Your task to perform on an android device: change notifications settings Image 0: 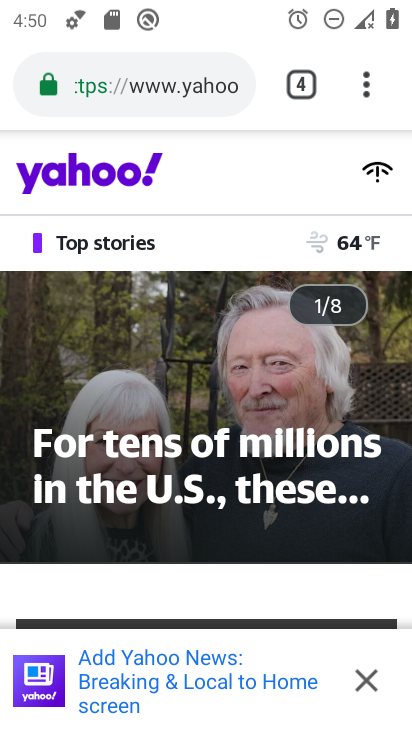
Step 0: press back button
Your task to perform on an android device: change notifications settings Image 1: 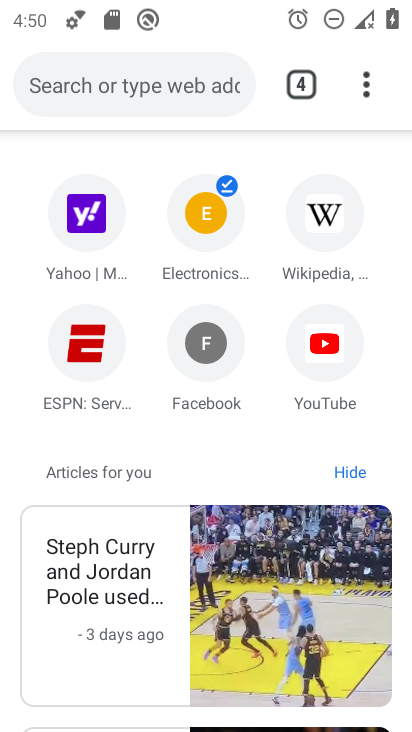
Step 1: press home button
Your task to perform on an android device: change notifications settings Image 2: 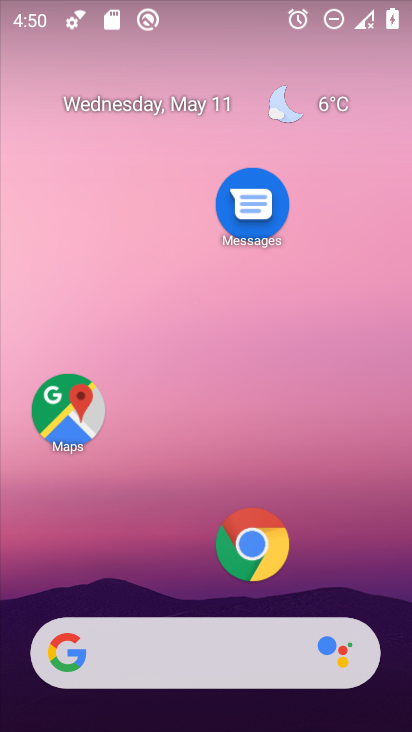
Step 2: drag from (172, 623) to (256, 100)
Your task to perform on an android device: change notifications settings Image 3: 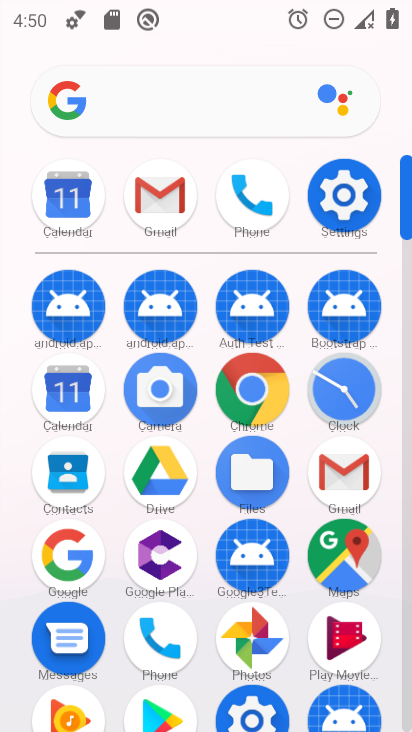
Step 3: click (344, 202)
Your task to perform on an android device: change notifications settings Image 4: 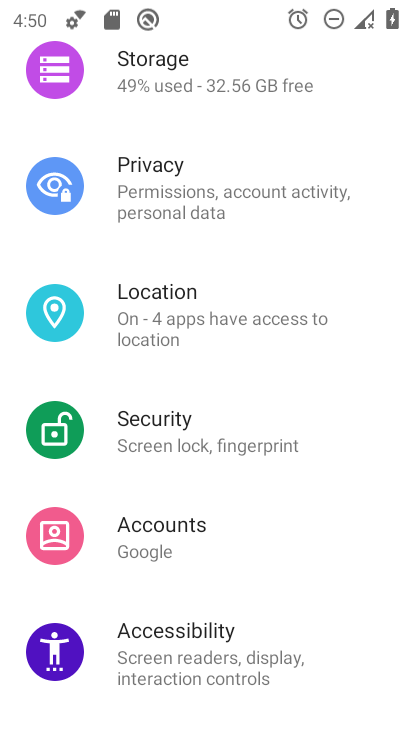
Step 4: drag from (258, 143) to (224, 487)
Your task to perform on an android device: change notifications settings Image 5: 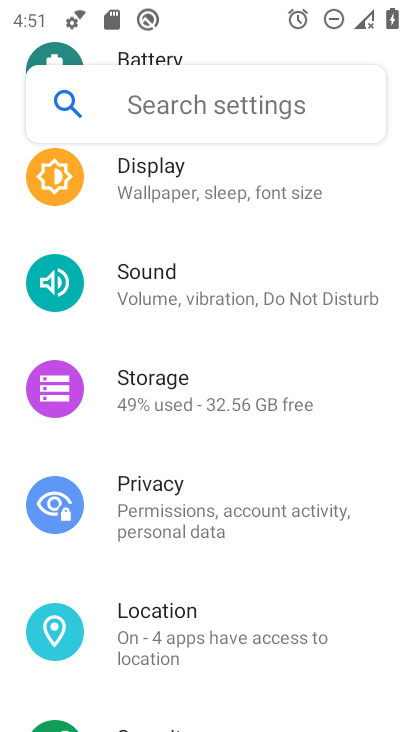
Step 5: drag from (245, 289) to (208, 527)
Your task to perform on an android device: change notifications settings Image 6: 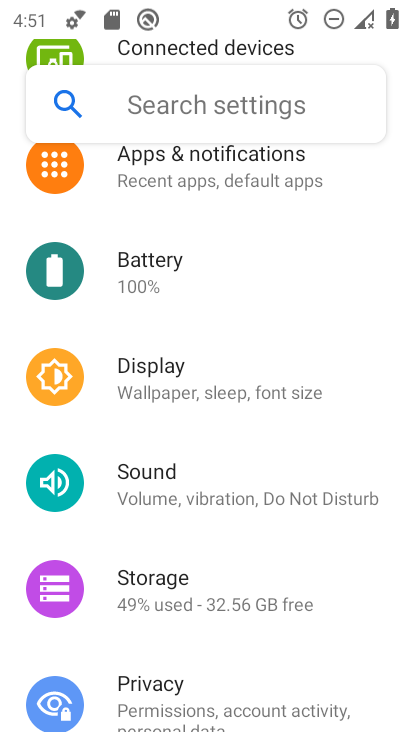
Step 6: click (267, 168)
Your task to perform on an android device: change notifications settings Image 7: 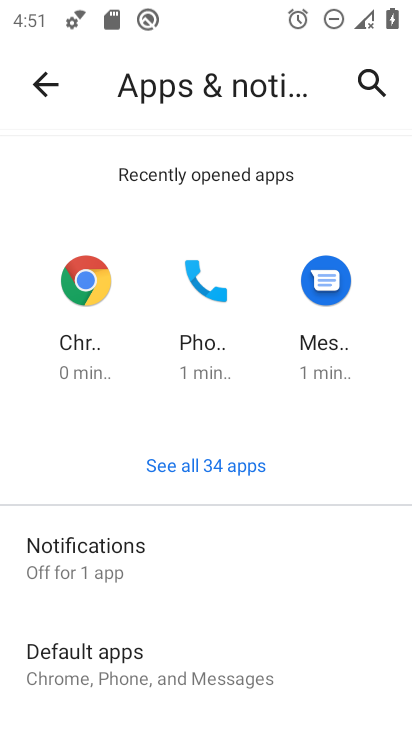
Step 7: click (146, 561)
Your task to perform on an android device: change notifications settings Image 8: 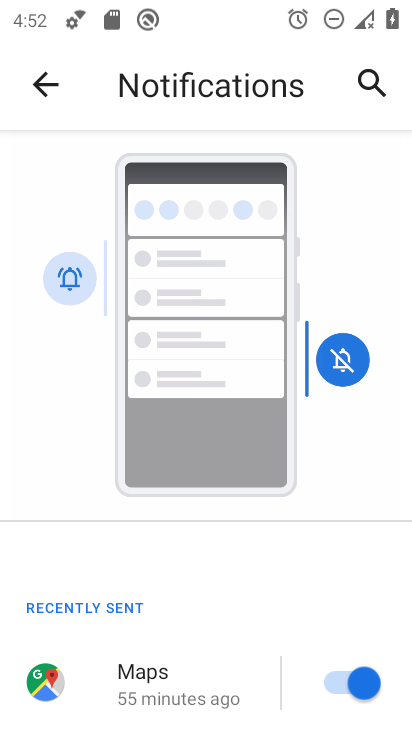
Step 8: drag from (172, 692) to (320, 118)
Your task to perform on an android device: change notifications settings Image 9: 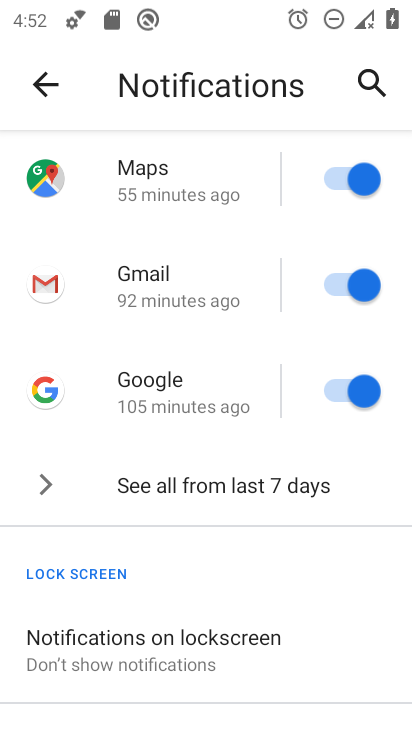
Step 9: drag from (213, 641) to (283, 320)
Your task to perform on an android device: change notifications settings Image 10: 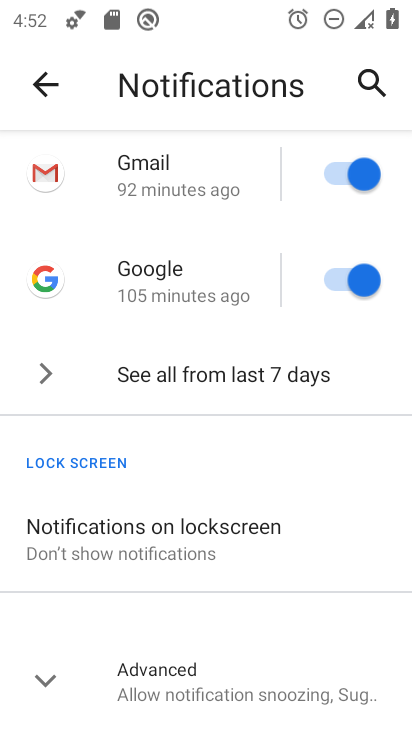
Step 10: click (221, 686)
Your task to perform on an android device: change notifications settings Image 11: 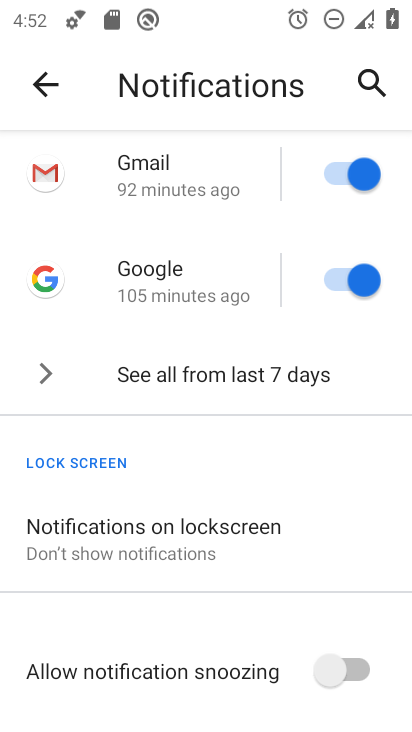
Step 11: click (329, 664)
Your task to perform on an android device: change notifications settings Image 12: 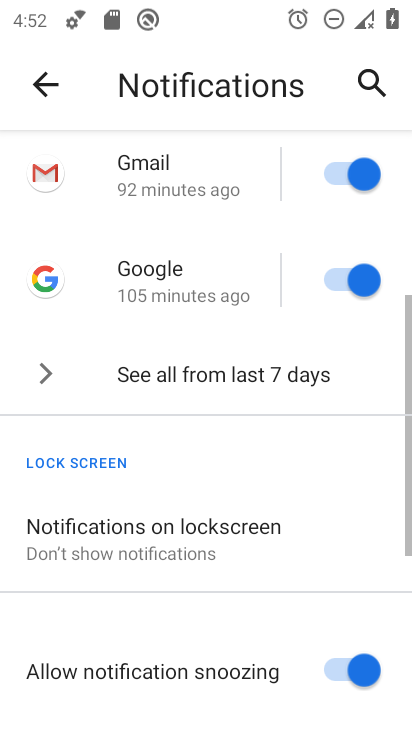
Step 12: task complete